Your task to perform on an android device: empty trash in google photos Image 0: 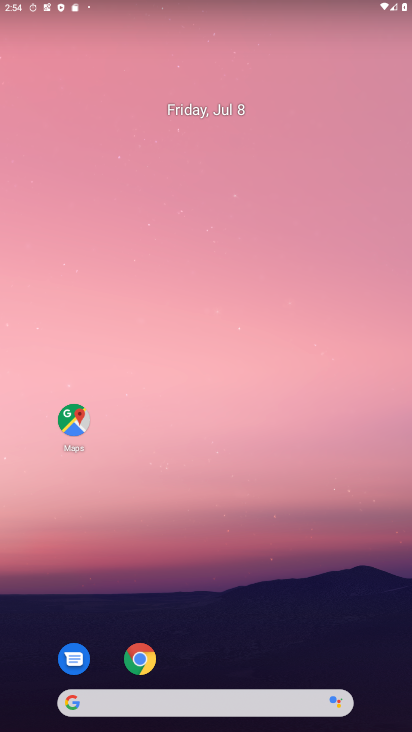
Step 0: drag from (205, 622) to (146, 116)
Your task to perform on an android device: empty trash in google photos Image 1: 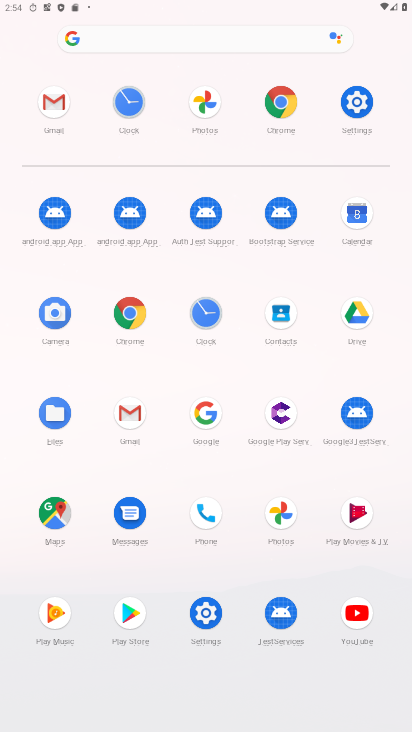
Step 1: click (208, 106)
Your task to perform on an android device: empty trash in google photos Image 2: 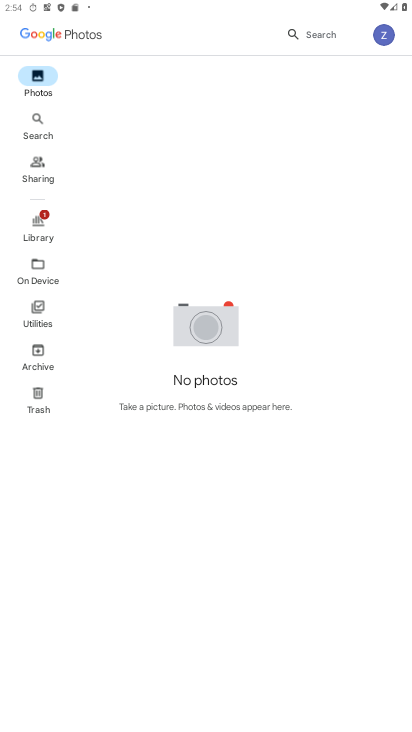
Step 2: click (36, 406)
Your task to perform on an android device: empty trash in google photos Image 3: 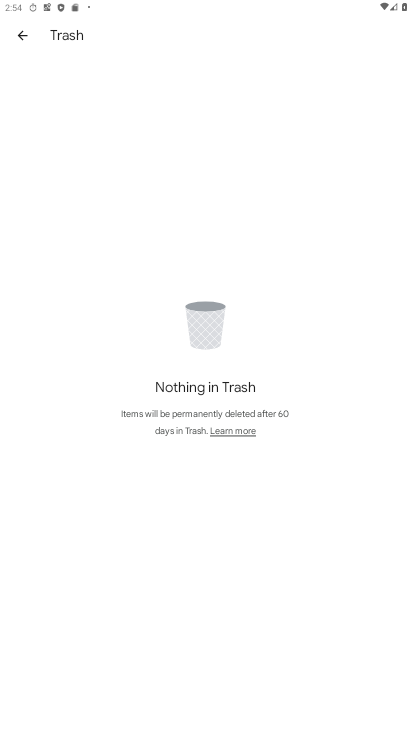
Step 3: task complete